Your task to perform on an android device: choose inbox layout in the gmail app Image 0: 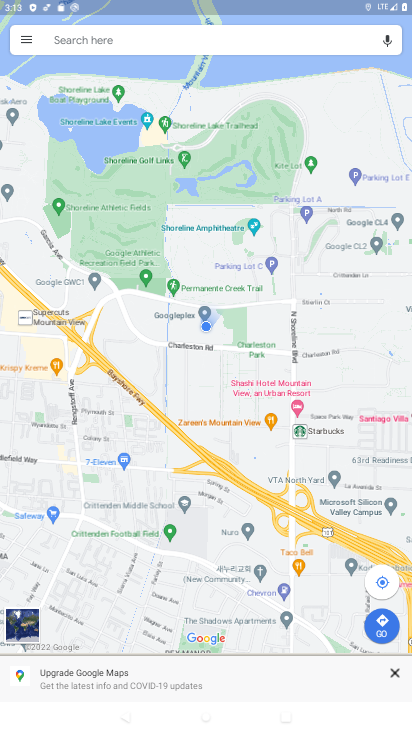
Step 0: press home button
Your task to perform on an android device: choose inbox layout in the gmail app Image 1: 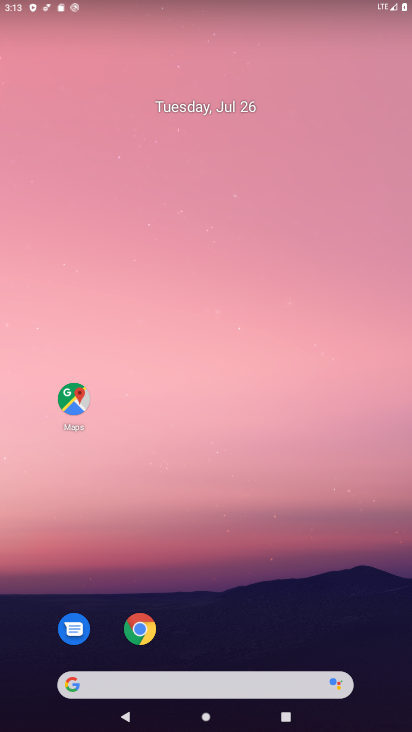
Step 1: drag from (236, 720) to (236, 281)
Your task to perform on an android device: choose inbox layout in the gmail app Image 2: 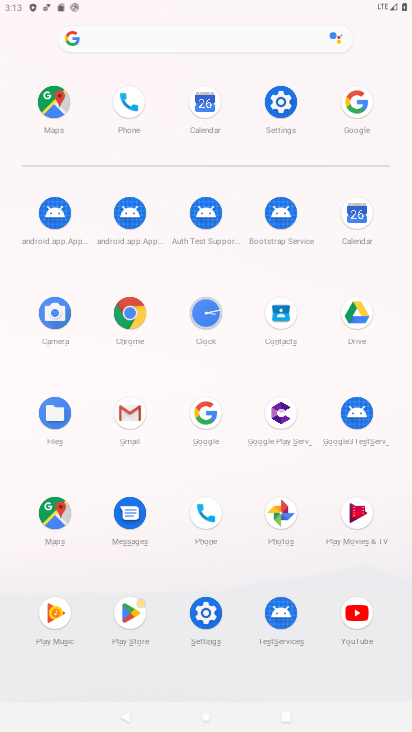
Step 2: click (138, 413)
Your task to perform on an android device: choose inbox layout in the gmail app Image 3: 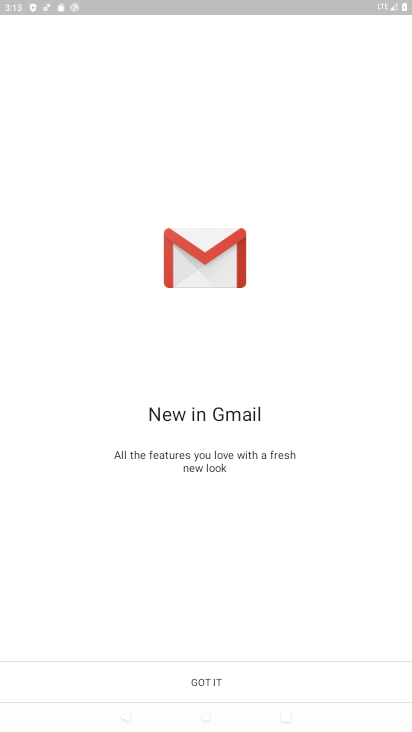
Step 3: click (206, 680)
Your task to perform on an android device: choose inbox layout in the gmail app Image 4: 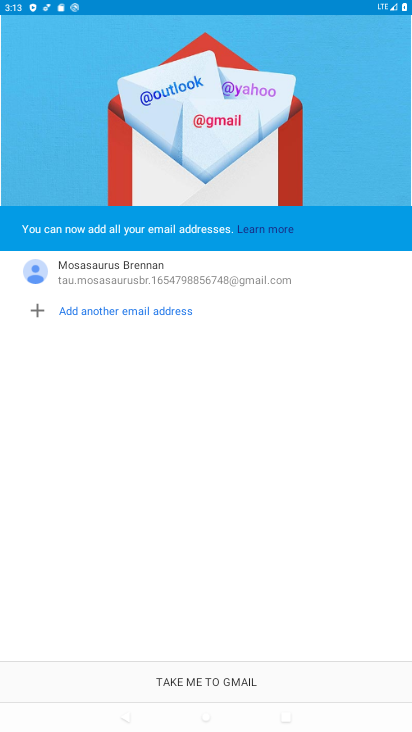
Step 4: click (206, 680)
Your task to perform on an android device: choose inbox layout in the gmail app Image 5: 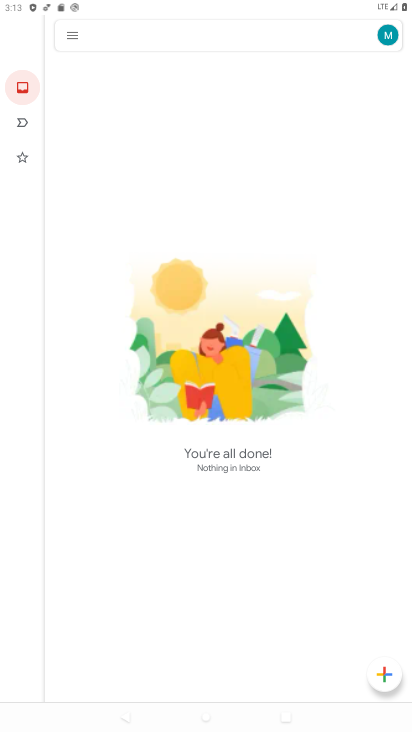
Step 5: click (71, 33)
Your task to perform on an android device: choose inbox layout in the gmail app Image 6: 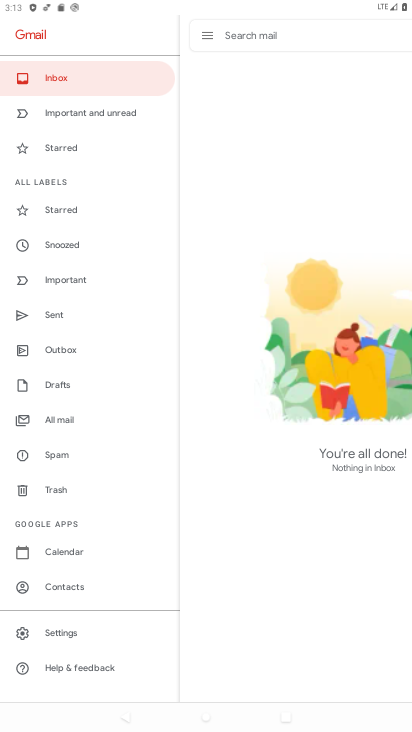
Step 6: click (70, 631)
Your task to perform on an android device: choose inbox layout in the gmail app Image 7: 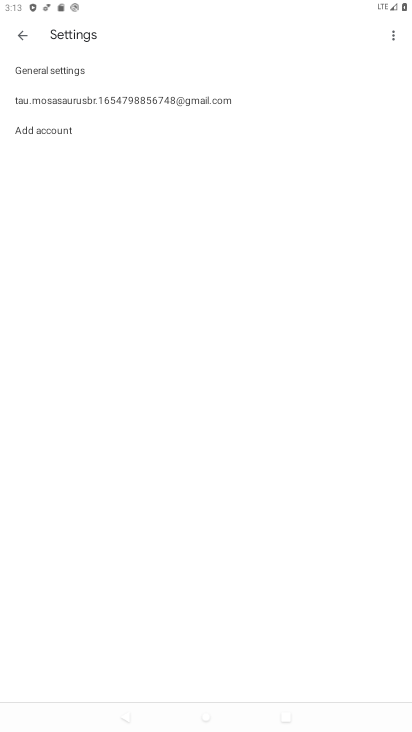
Step 7: click (127, 98)
Your task to perform on an android device: choose inbox layout in the gmail app Image 8: 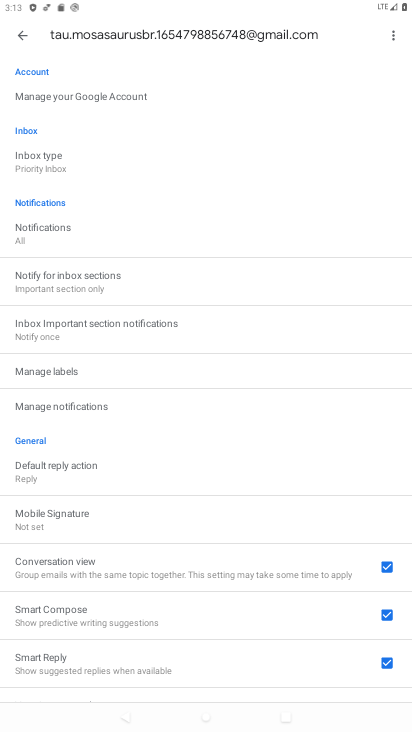
Step 8: click (40, 155)
Your task to perform on an android device: choose inbox layout in the gmail app Image 9: 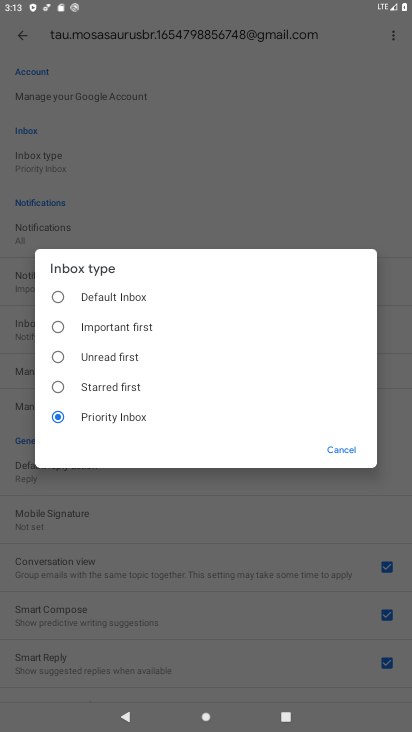
Step 9: click (56, 298)
Your task to perform on an android device: choose inbox layout in the gmail app Image 10: 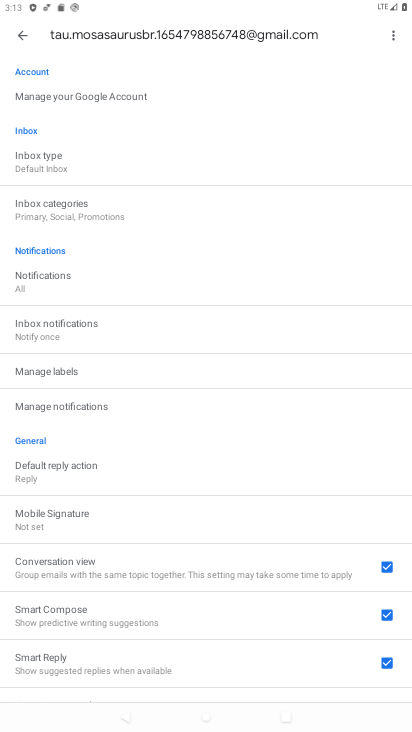
Step 10: task complete